Your task to perform on an android device: turn notification dots off Image 0: 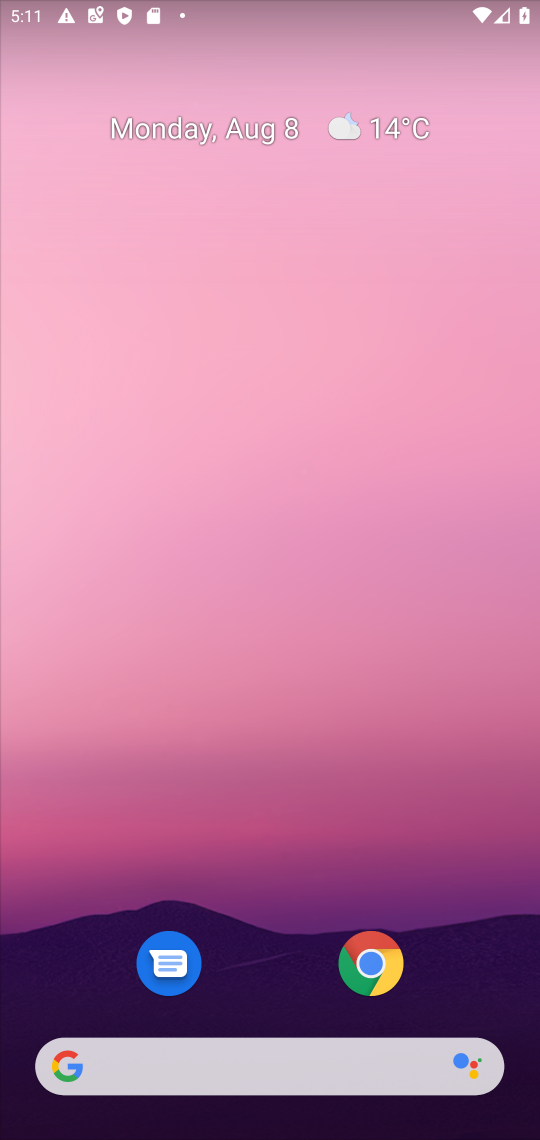
Step 0: press home button
Your task to perform on an android device: turn notification dots off Image 1: 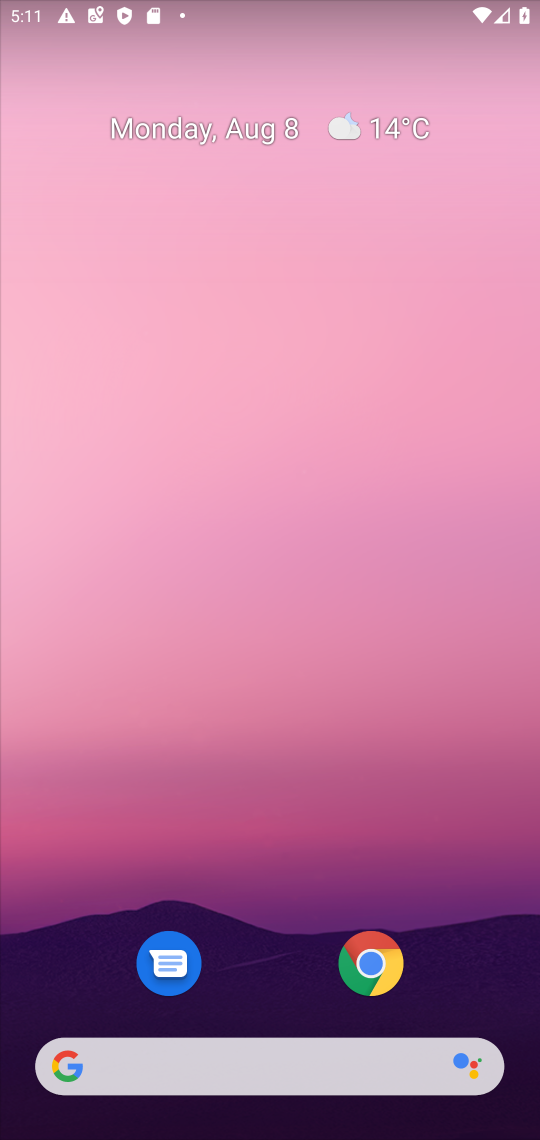
Step 1: drag from (283, 898) to (275, 315)
Your task to perform on an android device: turn notification dots off Image 2: 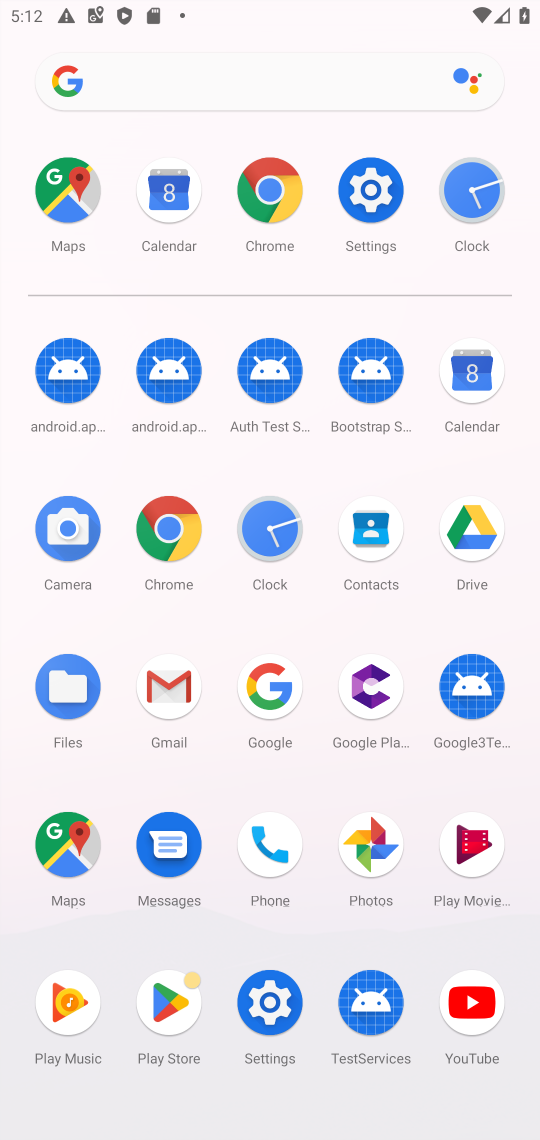
Step 2: click (361, 195)
Your task to perform on an android device: turn notification dots off Image 3: 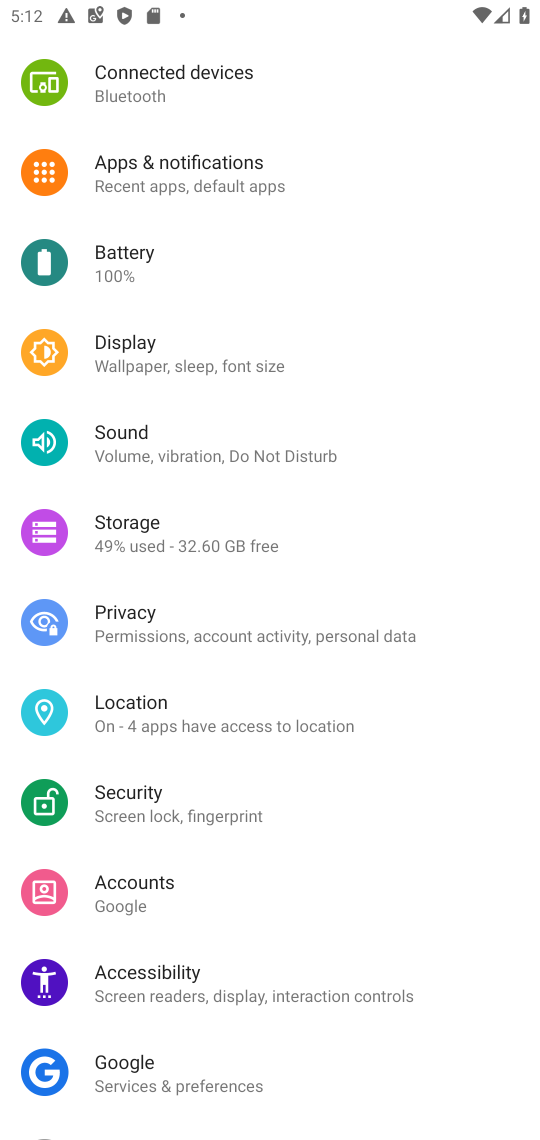
Step 3: click (207, 170)
Your task to perform on an android device: turn notification dots off Image 4: 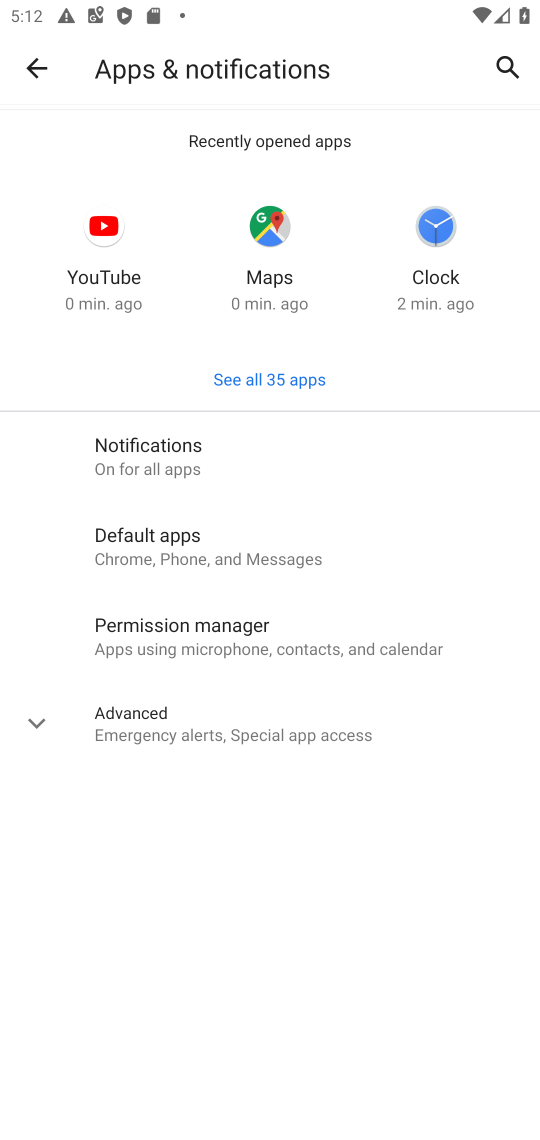
Step 4: click (192, 456)
Your task to perform on an android device: turn notification dots off Image 5: 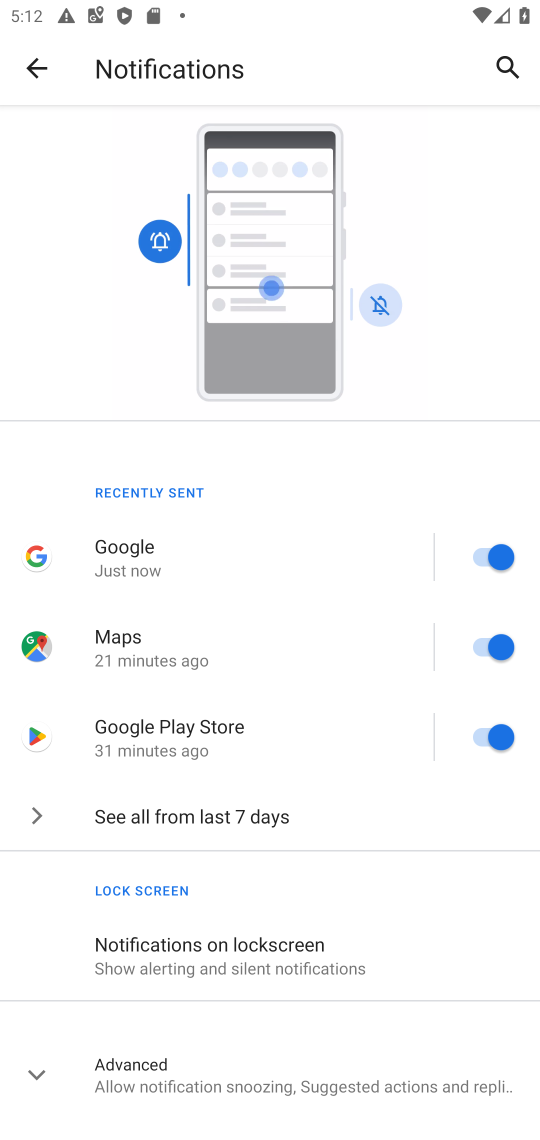
Step 5: click (150, 1066)
Your task to perform on an android device: turn notification dots off Image 6: 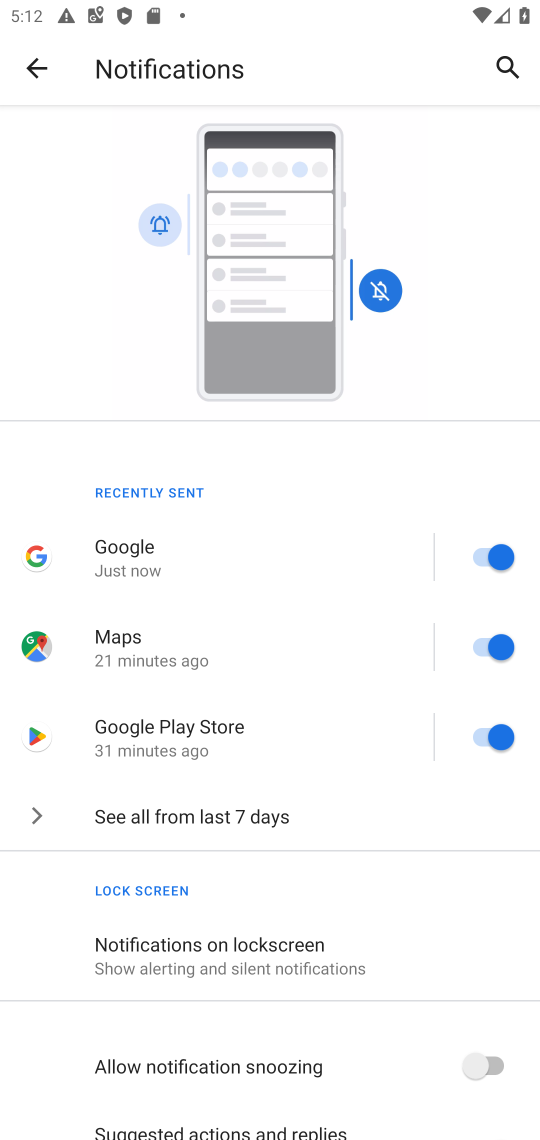
Step 6: drag from (202, 1078) to (187, 504)
Your task to perform on an android device: turn notification dots off Image 7: 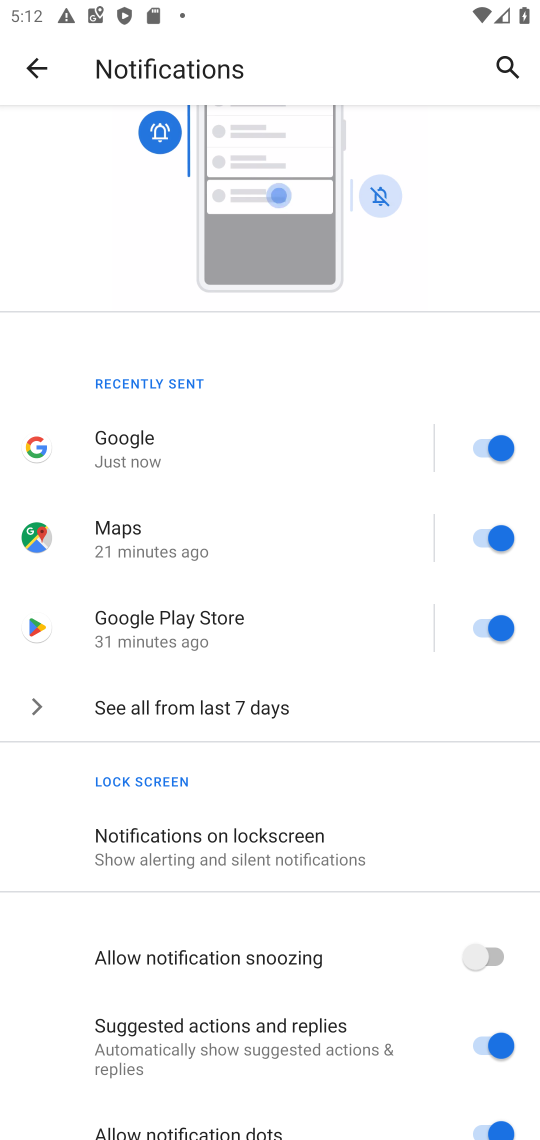
Step 7: click (492, 1129)
Your task to perform on an android device: turn notification dots off Image 8: 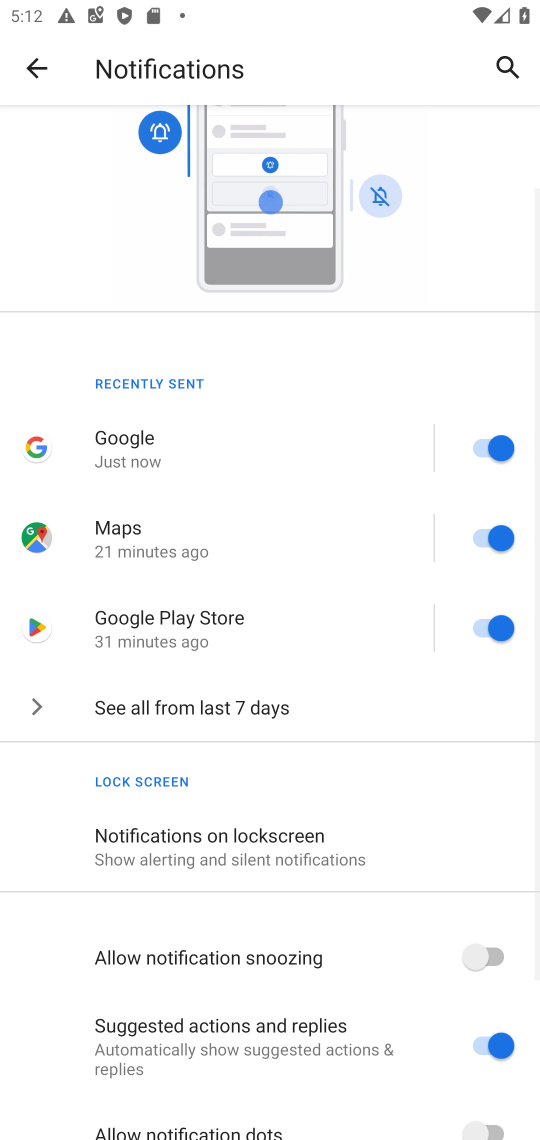
Step 8: task complete